Your task to perform on an android device: See recent photos Image 0: 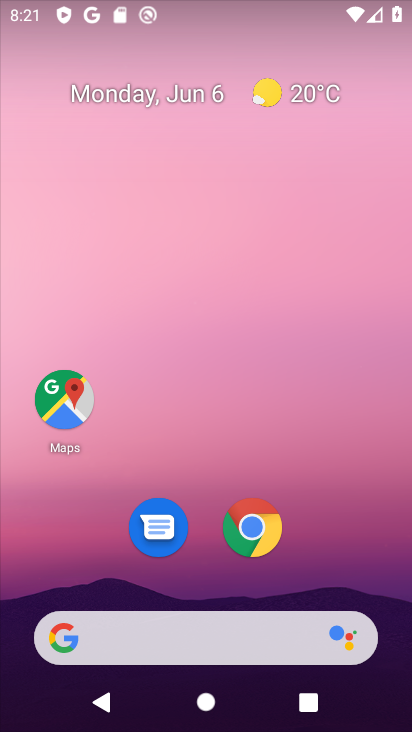
Step 0: drag from (242, 725) to (198, 97)
Your task to perform on an android device: See recent photos Image 1: 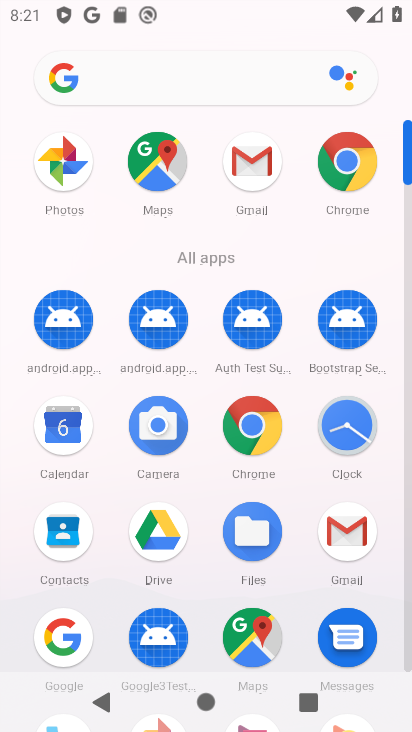
Step 1: drag from (297, 671) to (294, 246)
Your task to perform on an android device: See recent photos Image 2: 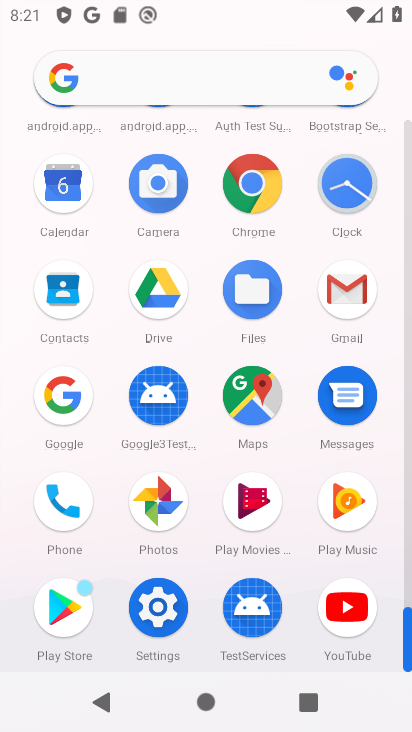
Step 2: click (153, 499)
Your task to perform on an android device: See recent photos Image 3: 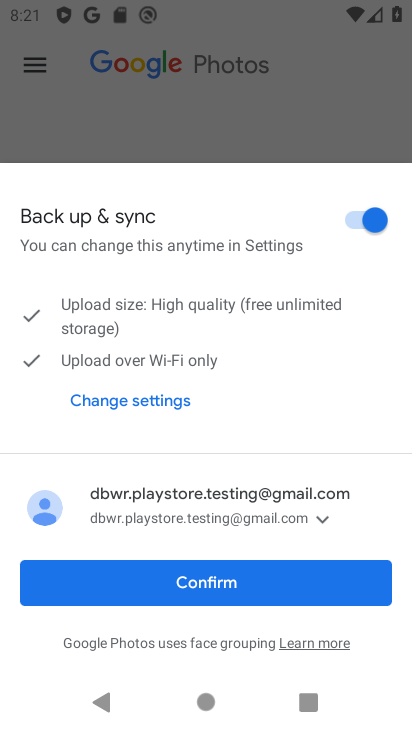
Step 3: click (199, 579)
Your task to perform on an android device: See recent photos Image 4: 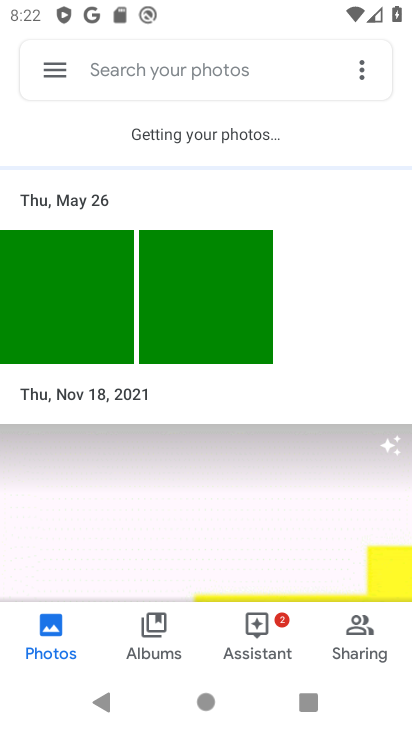
Step 4: click (91, 315)
Your task to perform on an android device: See recent photos Image 5: 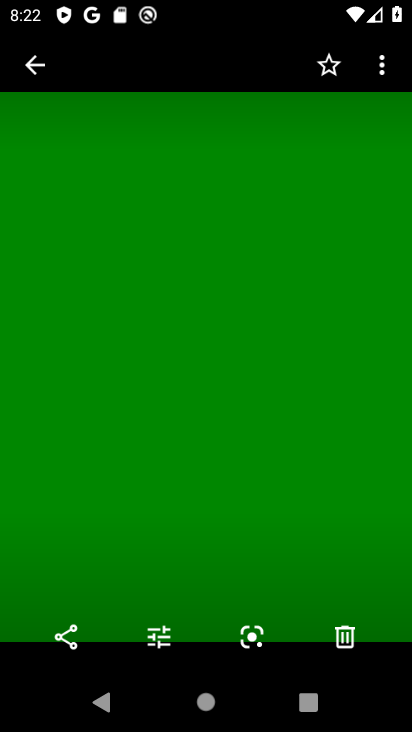
Step 5: task complete